Your task to perform on an android device: turn on improve location accuracy Image 0: 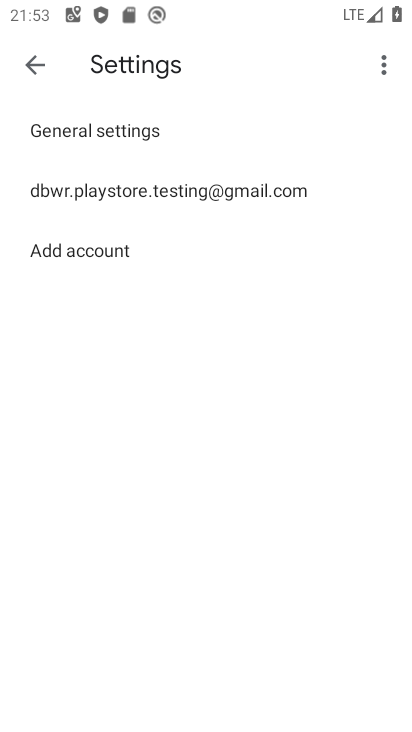
Step 0: press home button
Your task to perform on an android device: turn on improve location accuracy Image 1: 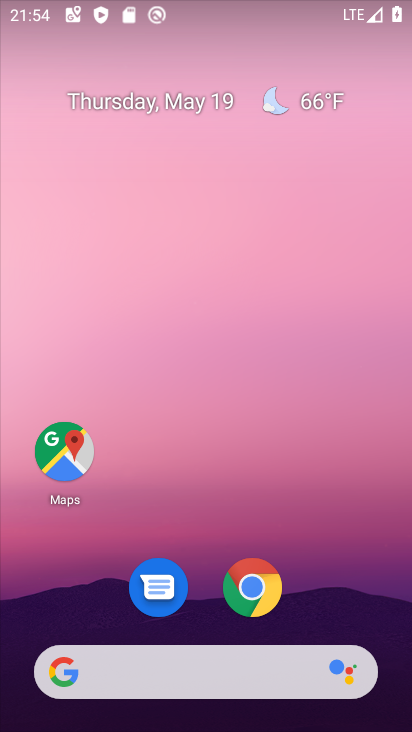
Step 1: drag from (266, 698) to (261, 93)
Your task to perform on an android device: turn on improve location accuracy Image 2: 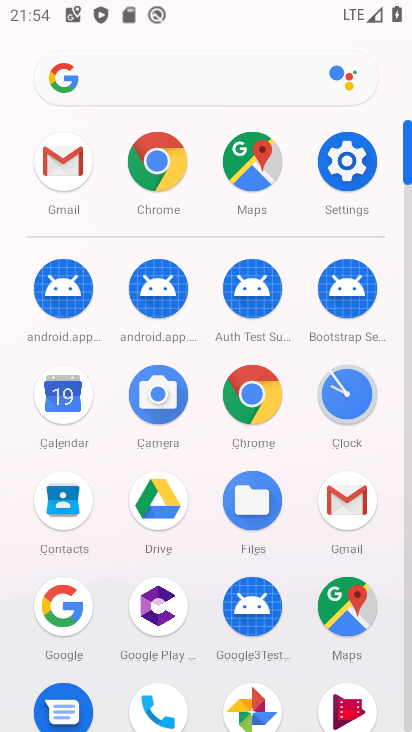
Step 2: click (345, 166)
Your task to perform on an android device: turn on improve location accuracy Image 3: 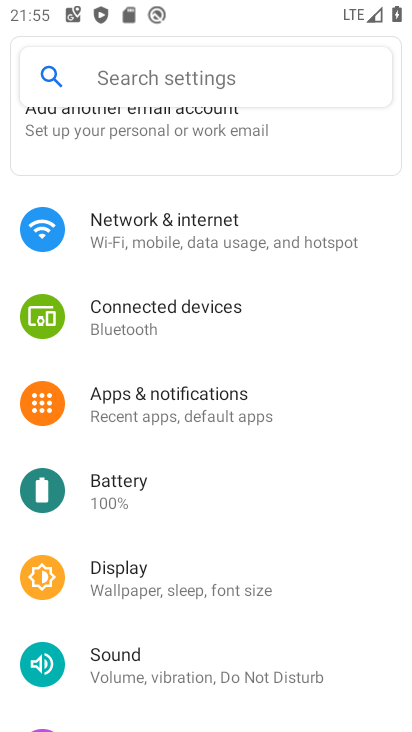
Step 3: click (116, 71)
Your task to perform on an android device: turn on improve location accuracy Image 4: 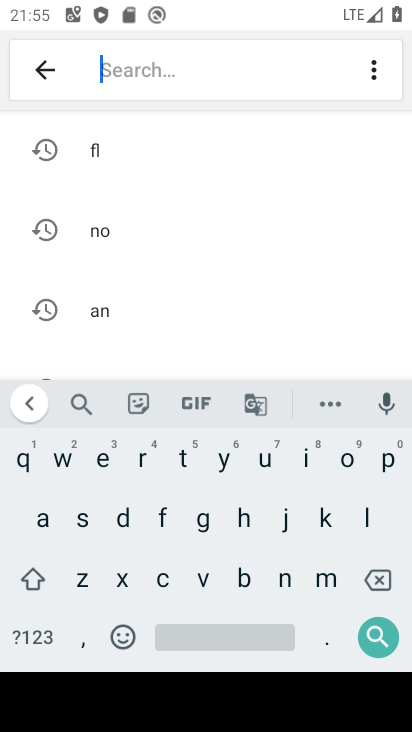
Step 4: click (374, 533)
Your task to perform on an android device: turn on improve location accuracy Image 5: 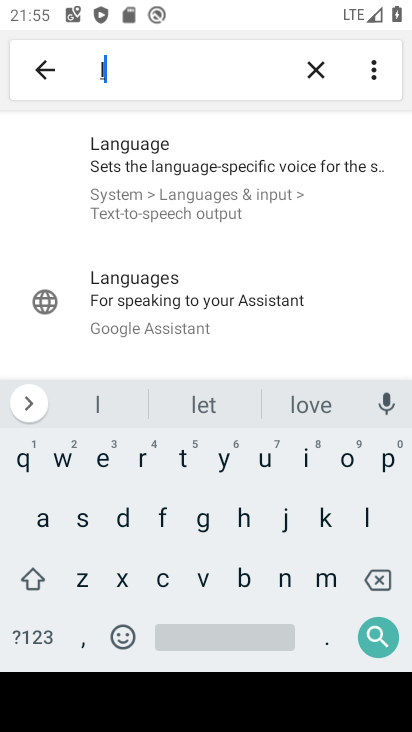
Step 5: click (337, 462)
Your task to perform on an android device: turn on improve location accuracy Image 6: 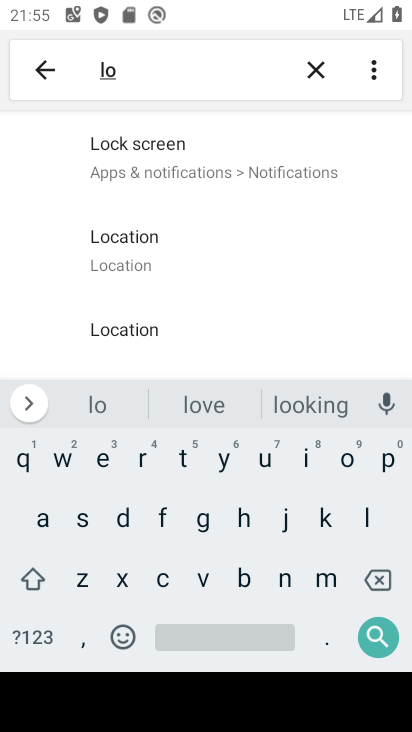
Step 6: click (163, 254)
Your task to perform on an android device: turn on improve location accuracy Image 7: 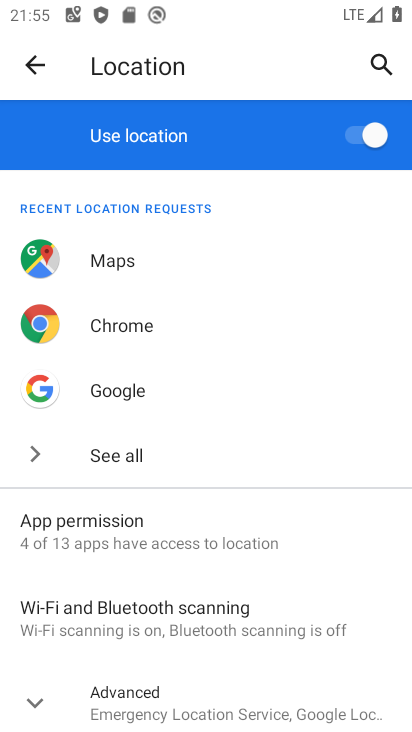
Step 7: click (58, 703)
Your task to perform on an android device: turn on improve location accuracy Image 8: 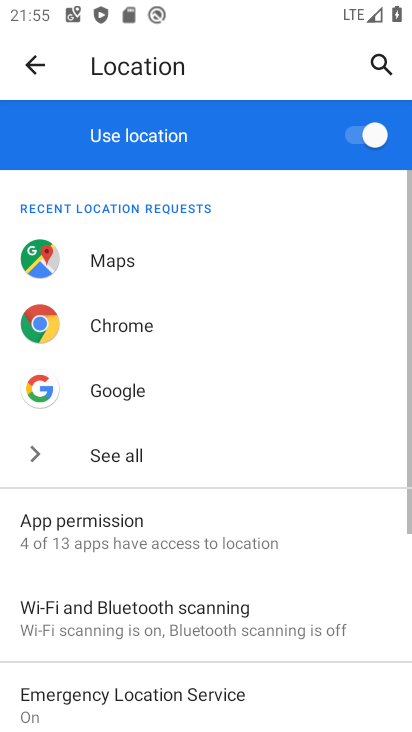
Step 8: drag from (200, 654) to (170, 234)
Your task to perform on an android device: turn on improve location accuracy Image 9: 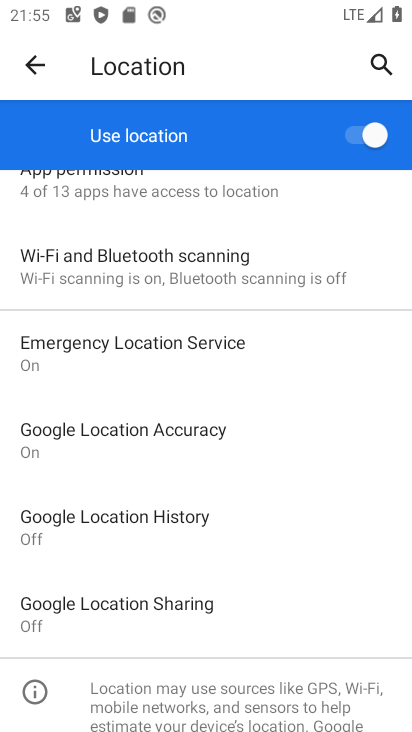
Step 9: click (132, 438)
Your task to perform on an android device: turn on improve location accuracy Image 10: 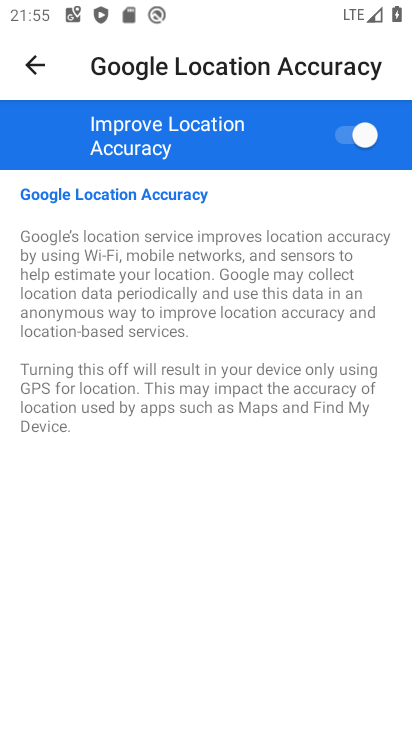
Step 10: click (348, 146)
Your task to perform on an android device: turn on improve location accuracy Image 11: 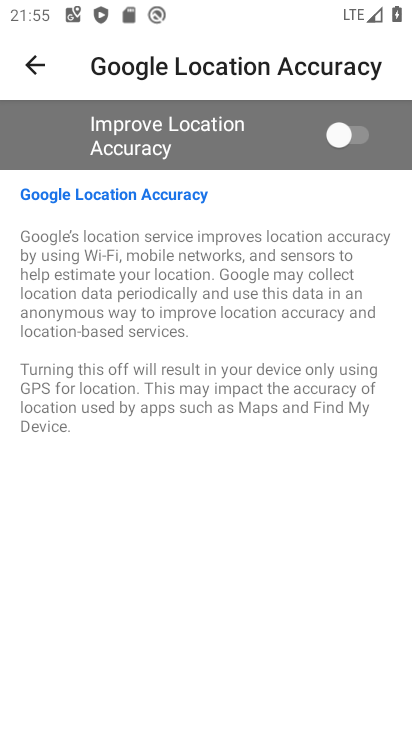
Step 11: click (350, 146)
Your task to perform on an android device: turn on improve location accuracy Image 12: 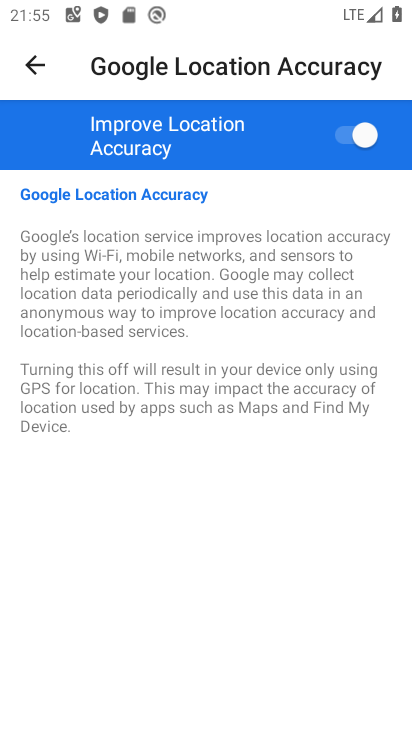
Step 12: task complete